Your task to perform on an android device: Open Maps and search for coffee Image 0: 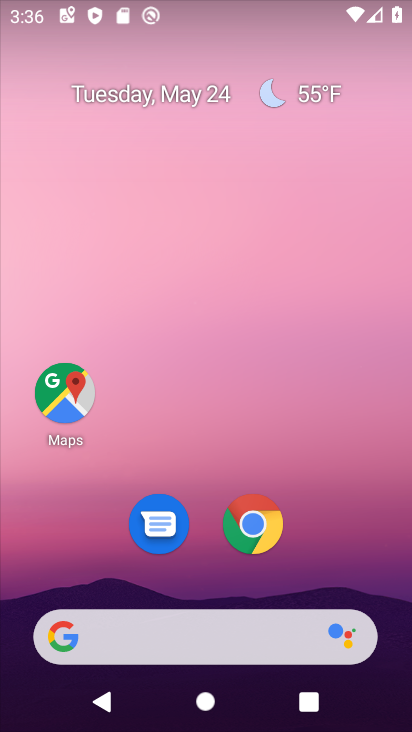
Step 0: click (68, 392)
Your task to perform on an android device: Open Maps and search for coffee Image 1: 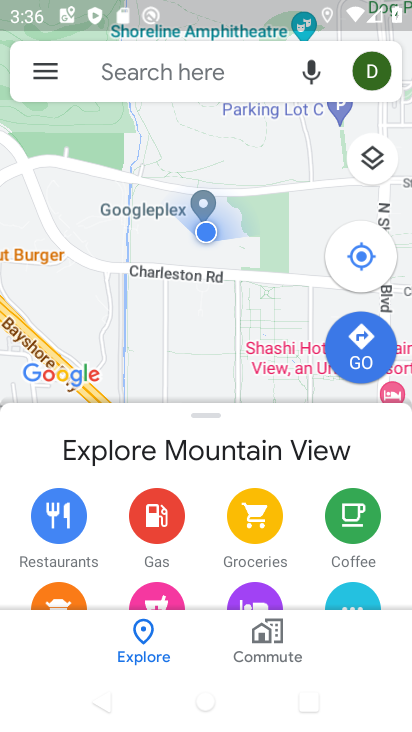
Step 1: click (227, 78)
Your task to perform on an android device: Open Maps and search for coffee Image 2: 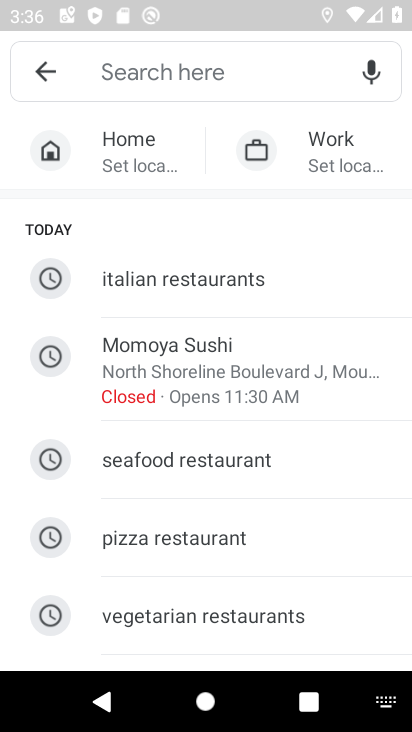
Step 2: drag from (215, 530) to (258, 607)
Your task to perform on an android device: Open Maps and search for coffee Image 3: 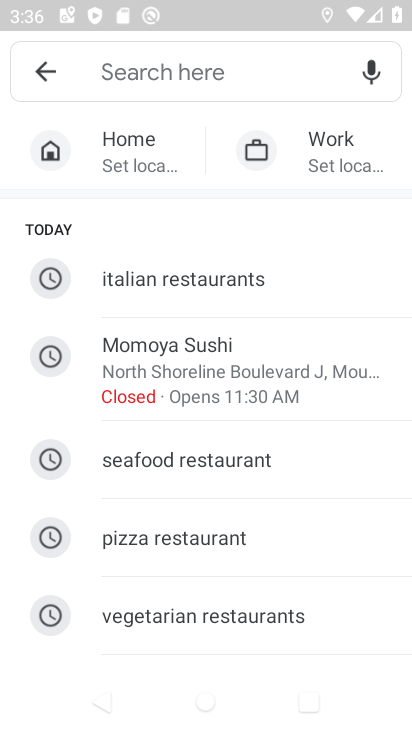
Step 3: type "coffee"
Your task to perform on an android device: Open Maps and search for coffee Image 4: 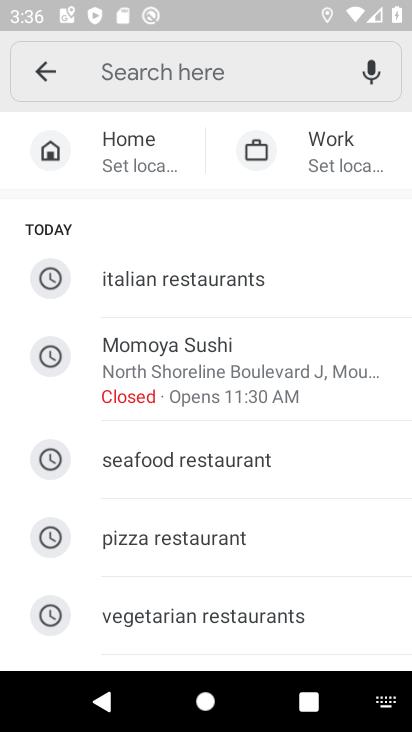
Step 4: click (292, 72)
Your task to perform on an android device: Open Maps and search for coffee Image 5: 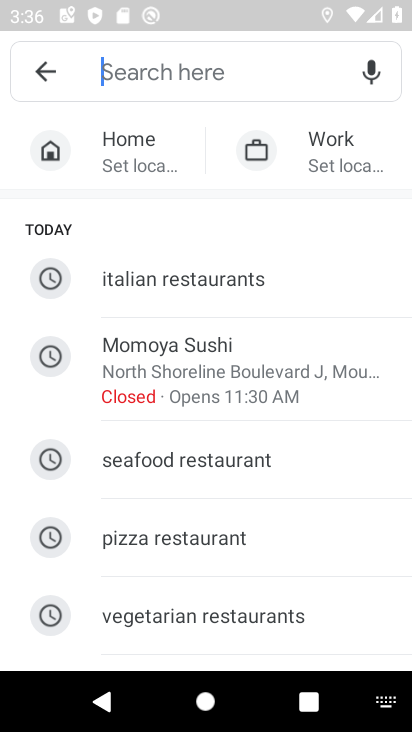
Step 5: type "coffee"
Your task to perform on an android device: Open Maps and search for coffee Image 6: 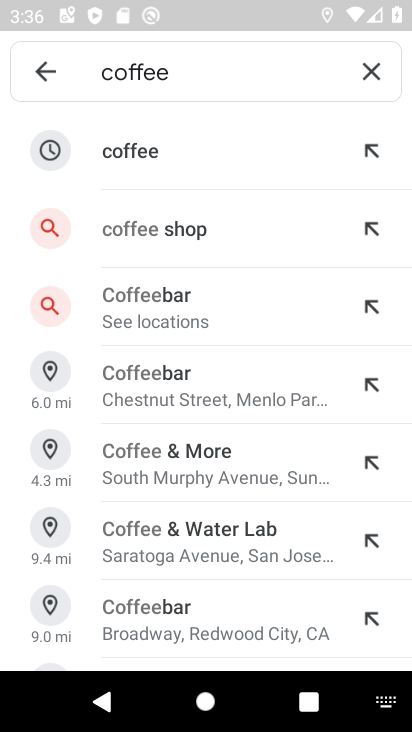
Step 6: click (161, 212)
Your task to perform on an android device: Open Maps and search for coffee Image 7: 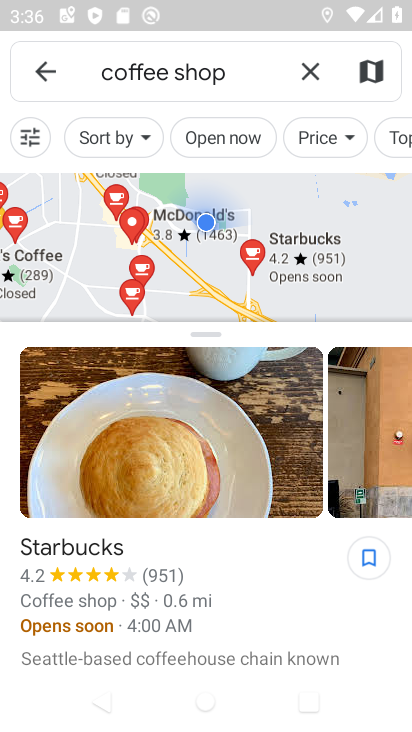
Step 7: task complete